Your task to perform on an android device: Open maps Image 0: 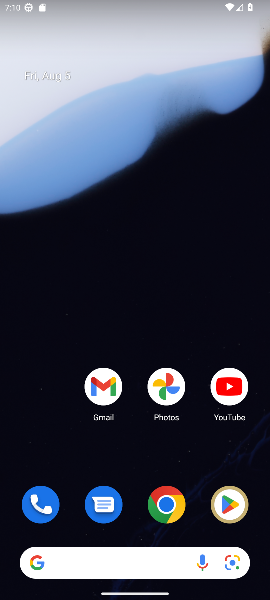
Step 0: drag from (137, 558) to (117, 144)
Your task to perform on an android device: Open maps Image 1: 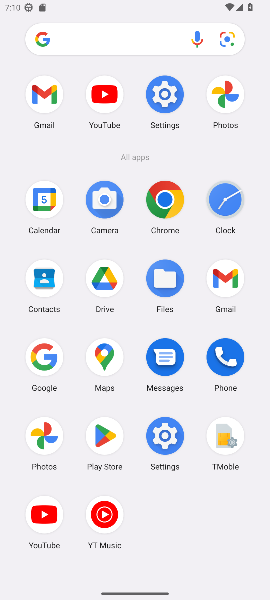
Step 1: click (109, 359)
Your task to perform on an android device: Open maps Image 2: 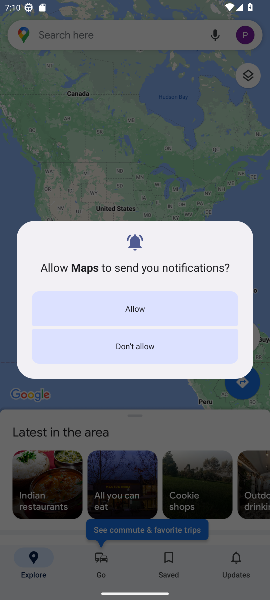
Step 2: click (146, 315)
Your task to perform on an android device: Open maps Image 3: 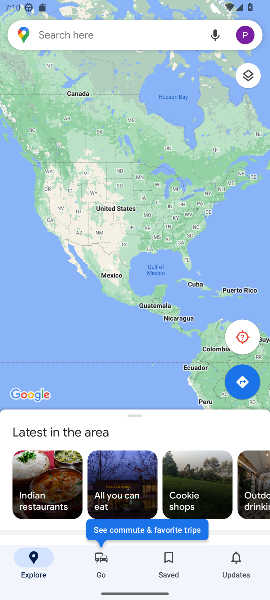
Step 3: task complete